Your task to perform on an android device: see tabs open on other devices in the chrome app Image 0: 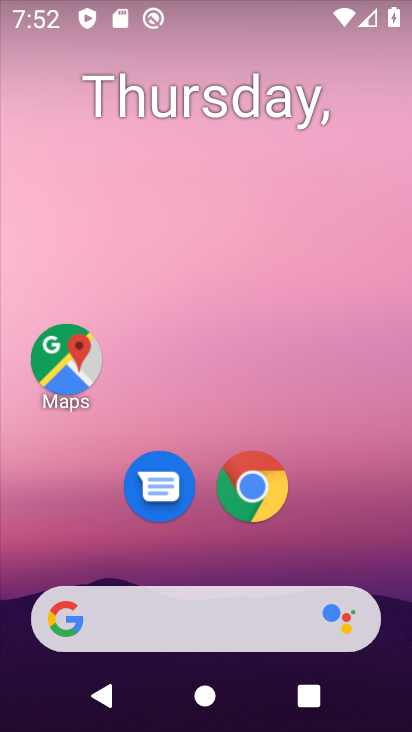
Step 0: click (268, 470)
Your task to perform on an android device: see tabs open on other devices in the chrome app Image 1: 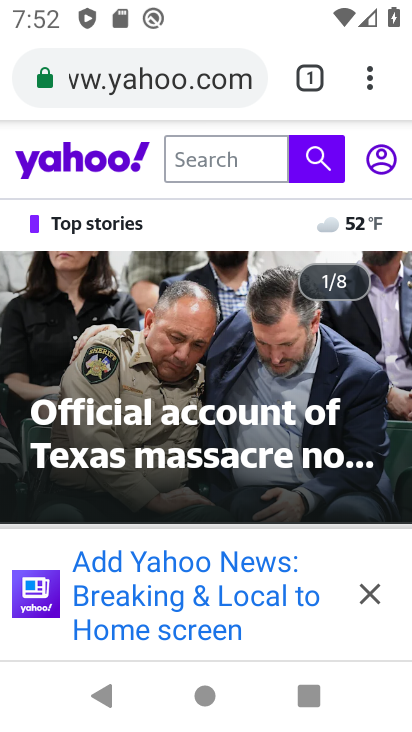
Step 1: task complete